Your task to perform on an android device: toggle pop-ups in chrome Image 0: 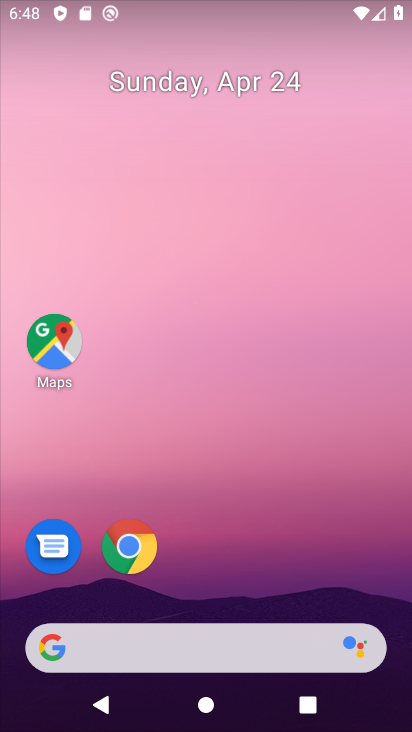
Step 0: click (130, 550)
Your task to perform on an android device: toggle pop-ups in chrome Image 1: 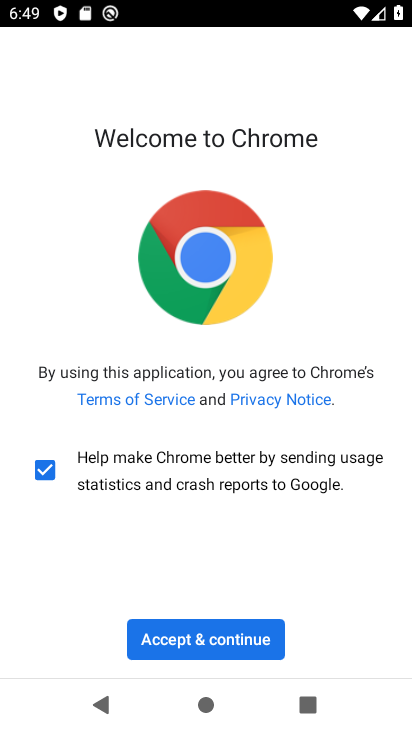
Step 1: click (220, 635)
Your task to perform on an android device: toggle pop-ups in chrome Image 2: 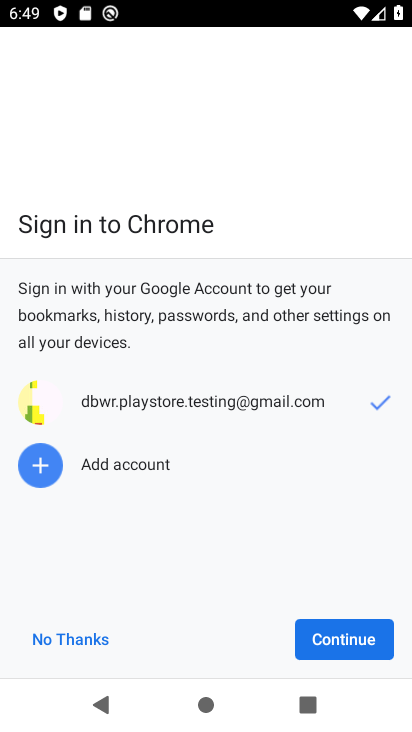
Step 2: click (325, 635)
Your task to perform on an android device: toggle pop-ups in chrome Image 3: 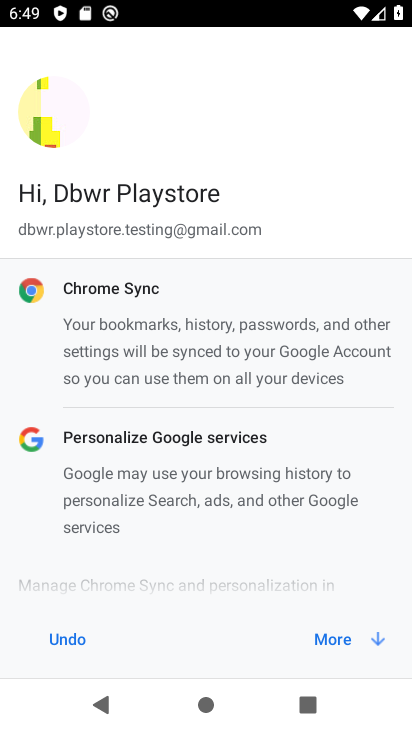
Step 3: click (328, 635)
Your task to perform on an android device: toggle pop-ups in chrome Image 4: 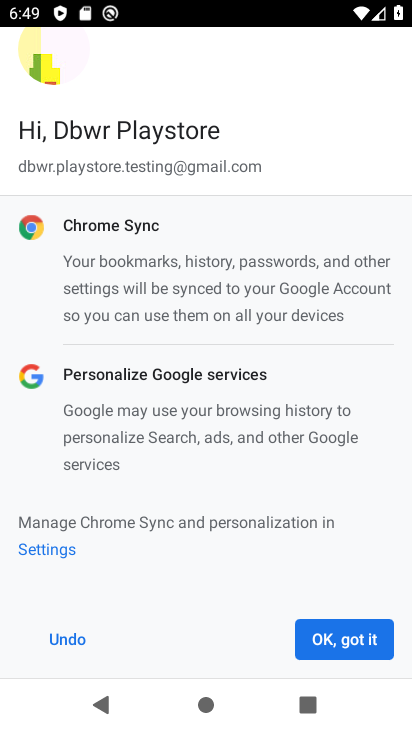
Step 4: click (328, 645)
Your task to perform on an android device: toggle pop-ups in chrome Image 5: 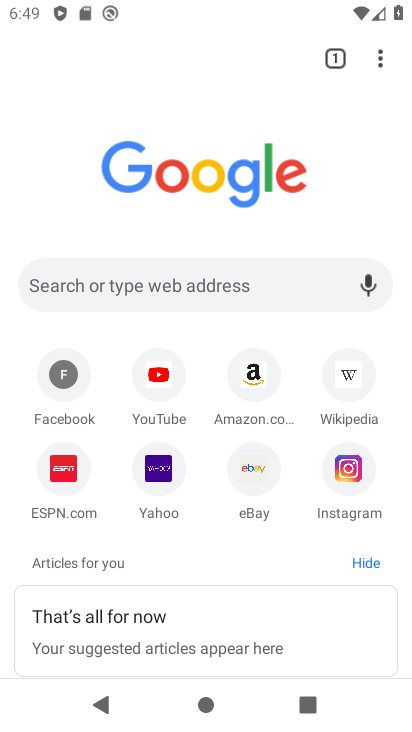
Step 5: click (380, 58)
Your task to perform on an android device: toggle pop-ups in chrome Image 6: 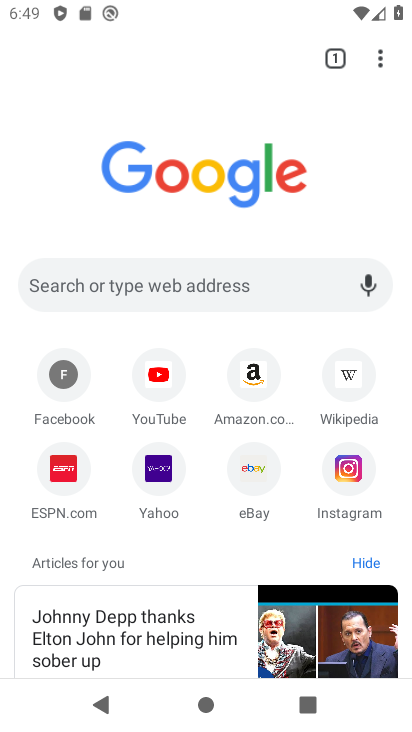
Step 6: click (380, 63)
Your task to perform on an android device: toggle pop-ups in chrome Image 7: 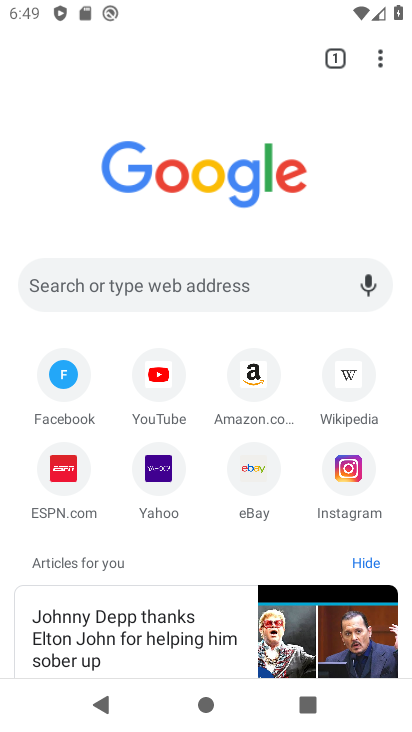
Step 7: click (376, 62)
Your task to perform on an android device: toggle pop-ups in chrome Image 8: 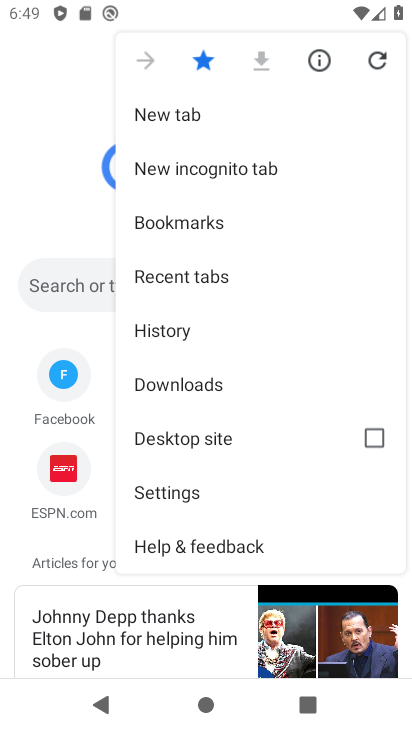
Step 8: click (172, 485)
Your task to perform on an android device: toggle pop-ups in chrome Image 9: 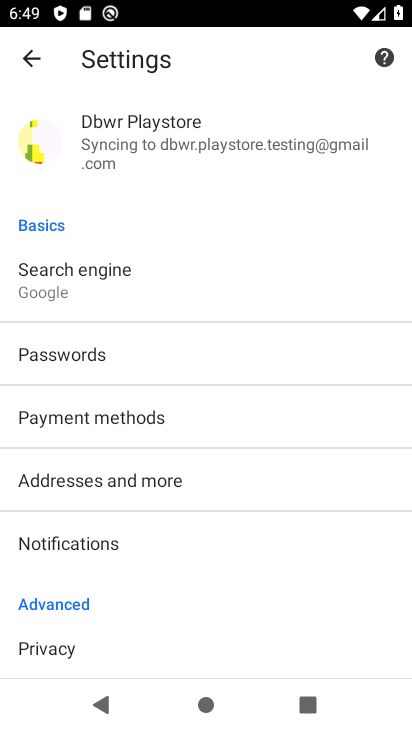
Step 9: drag from (204, 573) to (247, 172)
Your task to perform on an android device: toggle pop-ups in chrome Image 10: 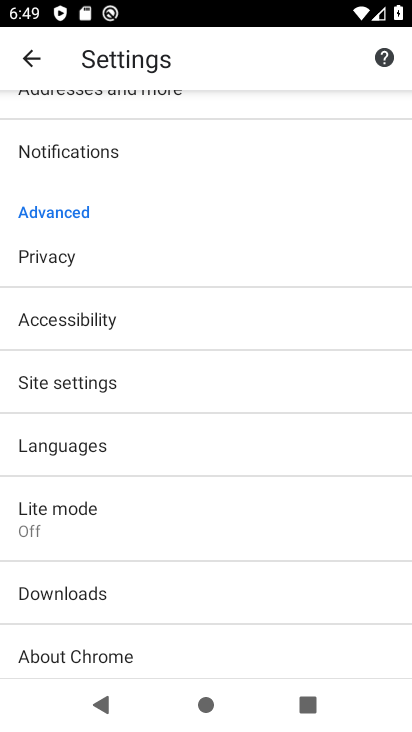
Step 10: click (97, 377)
Your task to perform on an android device: toggle pop-ups in chrome Image 11: 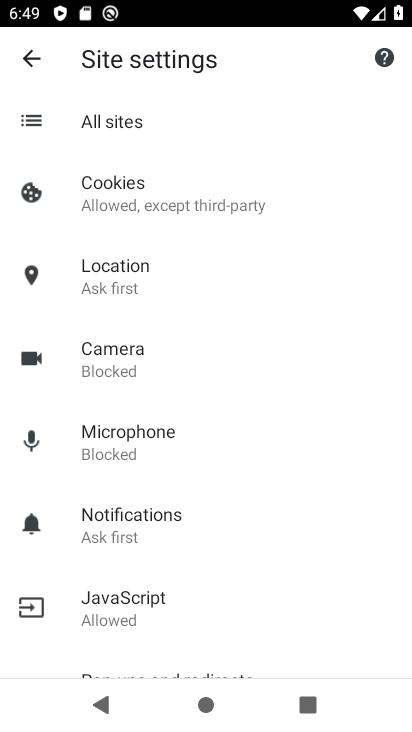
Step 11: drag from (280, 485) to (296, 97)
Your task to perform on an android device: toggle pop-ups in chrome Image 12: 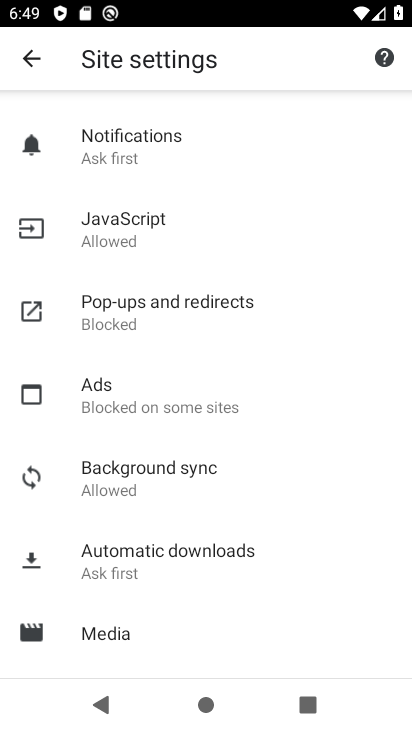
Step 12: click (154, 303)
Your task to perform on an android device: toggle pop-ups in chrome Image 13: 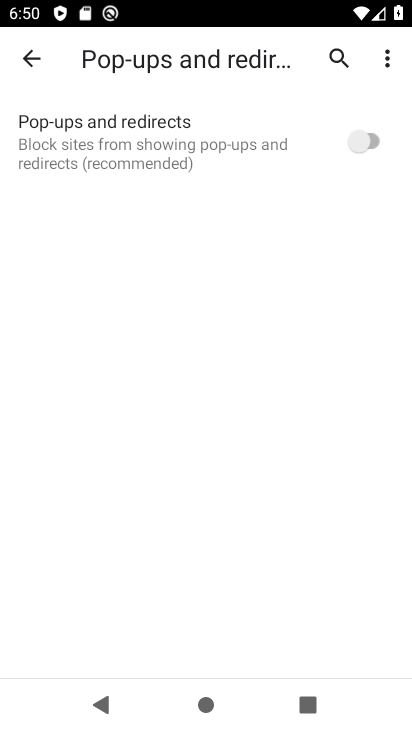
Step 13: click (360, 137)
Your task to perform on an android device: toggle pop-ups in chrome Image 14: 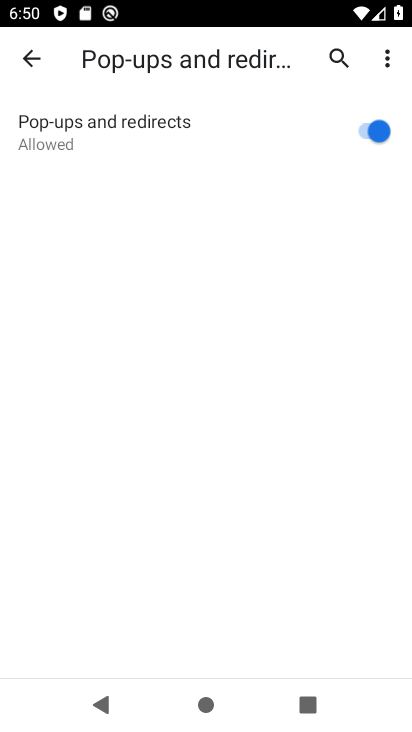
Step 14: task complete